Your task to perform on an android device: Open Youtube and go to "Your channel" Image 0: 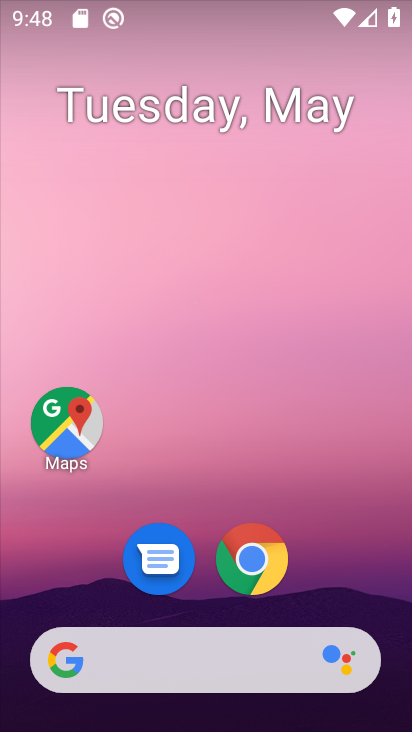
Step 0: drag from (388, 633) to (261, 1)
Your task to perform on an android device: Open Youtube and go to "Your channel" Image 1: 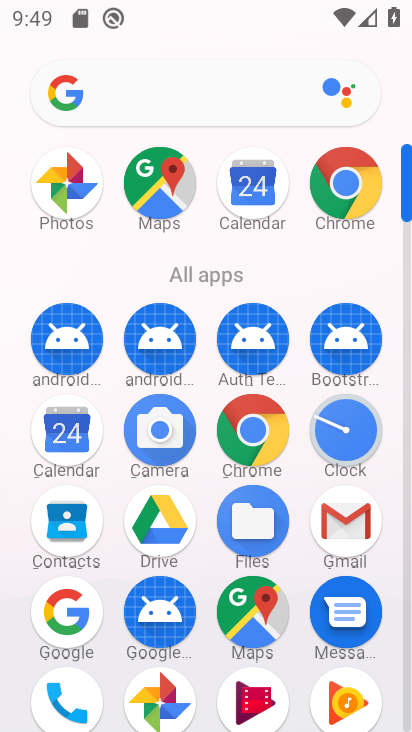
Step 1: drag from (113, 659) to (81, 126)
Your task to perform on an android device: Open Youtube and go to "Your channel" Image 2: 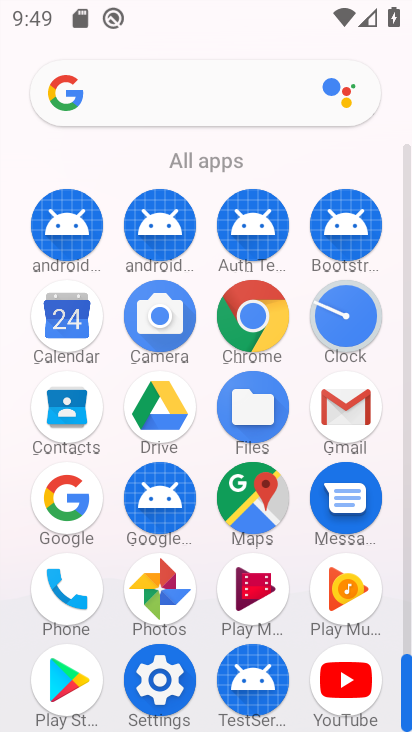
Step 2: click (329, 685)
Your task to perform on an android device: Open Youtube and go to "Your channel" Image 3: 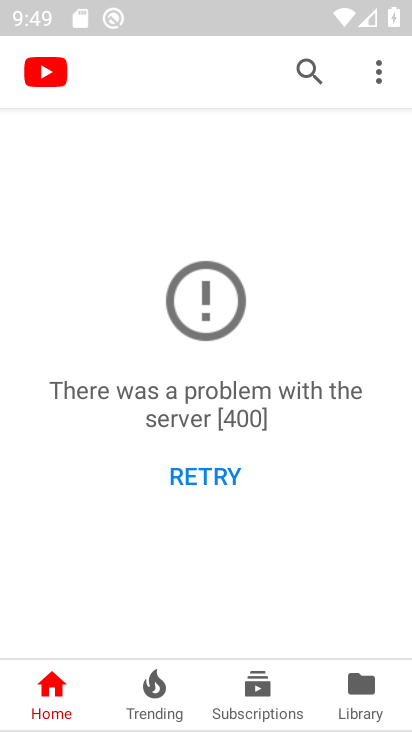
Step 3: click (211, 458)
Your task to perform on an android device: Open Youtube and go to "Your channel" Image 4: 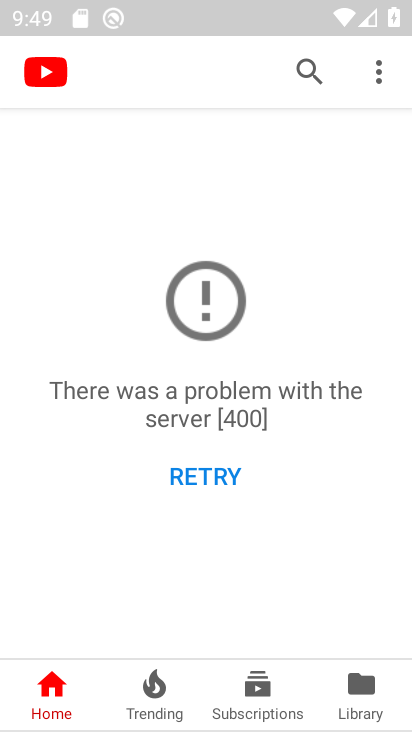
Step 4: task complete